Your task to perform on an android device: turn on the 24-hour format for clock Image 0: 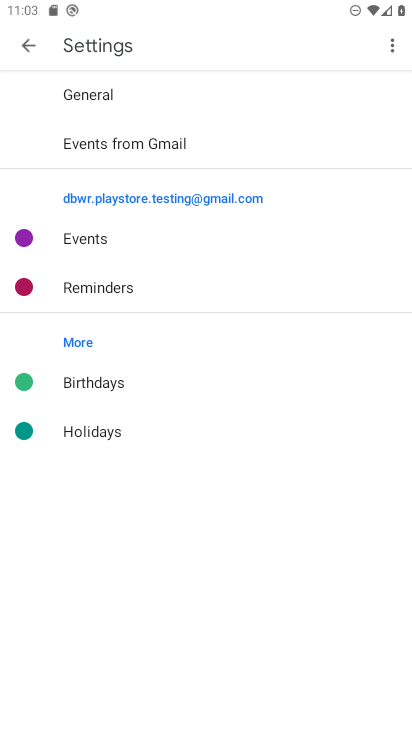
Step 0: press home button
Your task to perform on an android device: turn on the 24-hour format for clock Image 1: 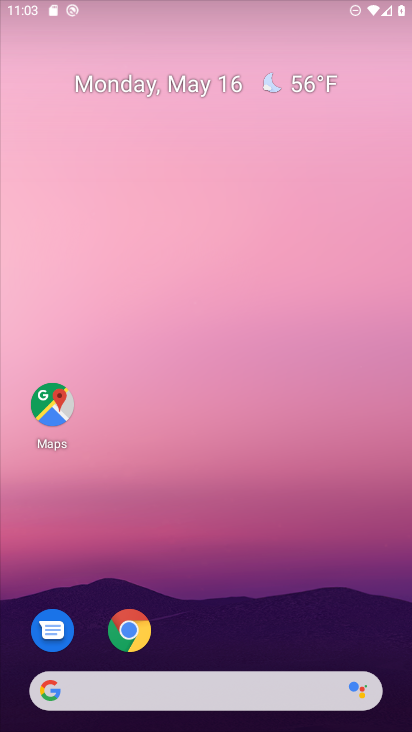
Step 1: drag from (212, 460) to (216, 38)
Your task to perform on an android device: turn on the 24-hour format for clock Image 2: 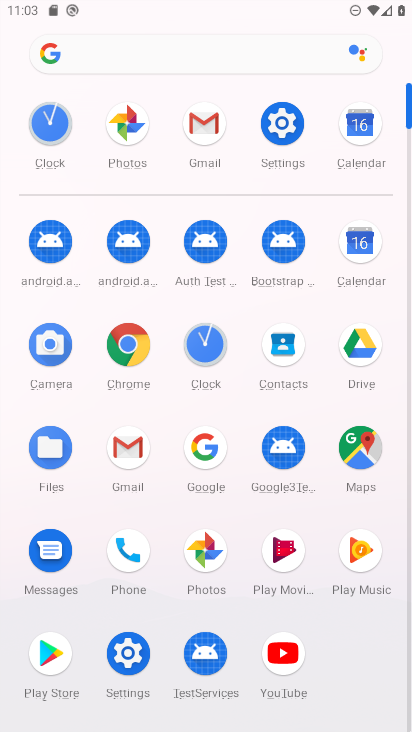
Step 2: click (200, 347)
Your task to perform on an android device: turn on the 24-hour format for clock Image 3: 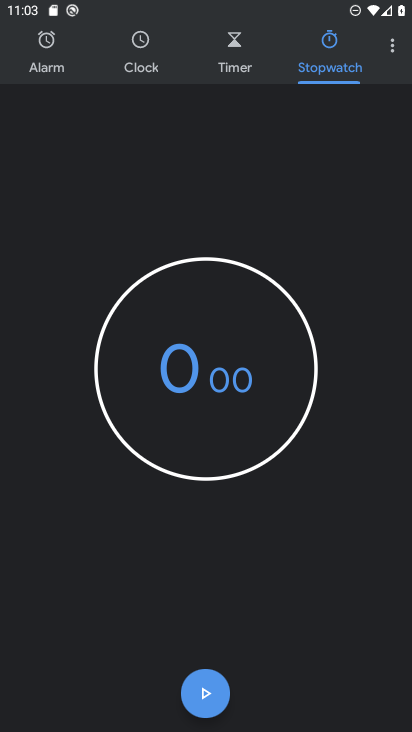
Step 3: click (387, 48)
Your task to perform on an android device: turn on the 24-hour format for clock Image 4: 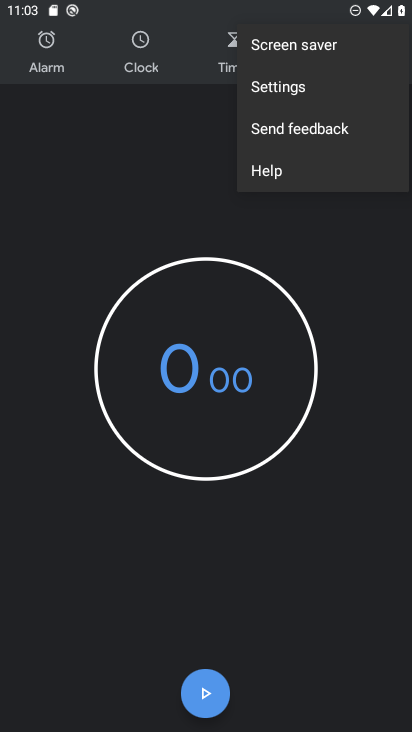
Step 4: click (327, 84)
Your task to perform on an android device: turn on the 24-hour format for clock Image 5: 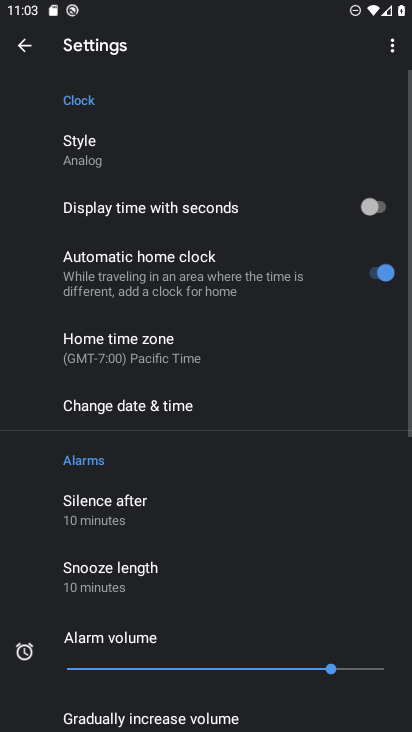
Step 5: click (201, 398)
Your task to perform on an android device: turn on the 24-hour format for clock Image 6: 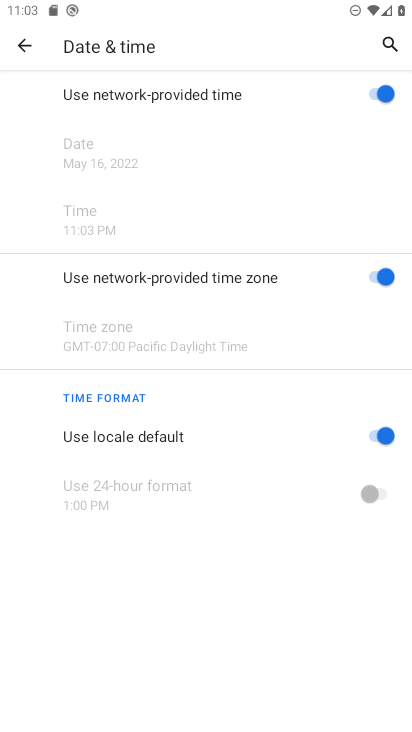
Step 6: click (365, 427)
Your task to perform on an android device: turn on the 24-hour format for clock Image 7: 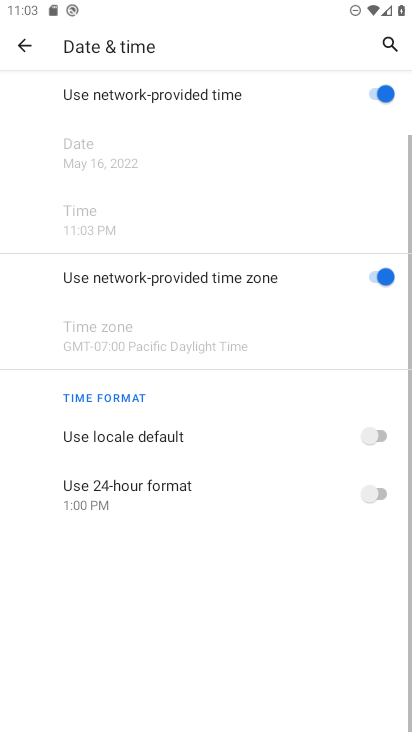
Step 7: click (381, 480)
Your task to perform on an android device: turn on the 24-hour format for clock Image 8: 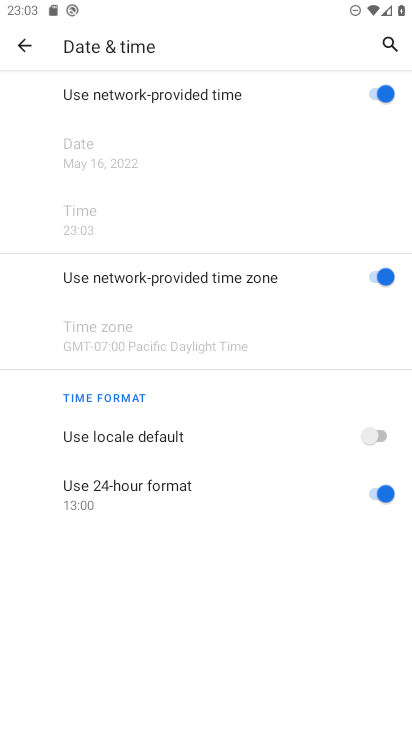
Step 8: task complete